Your task to perform on an android device: Go to eBay Image 0: 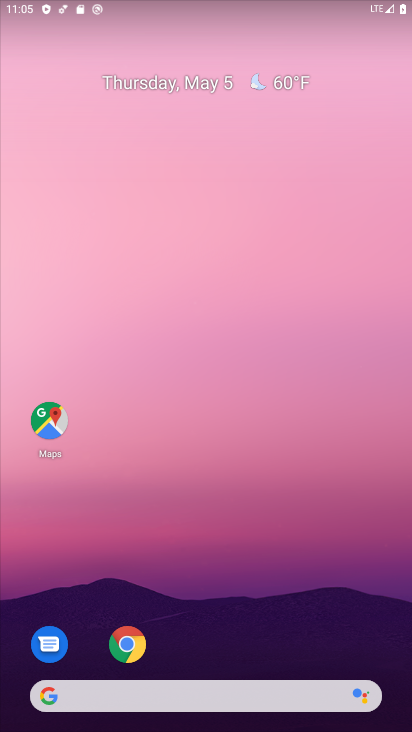
Step 0: drag from (355, 620) to (341, 125)
Your task to perform on an android device: Go to eBay Image 1: 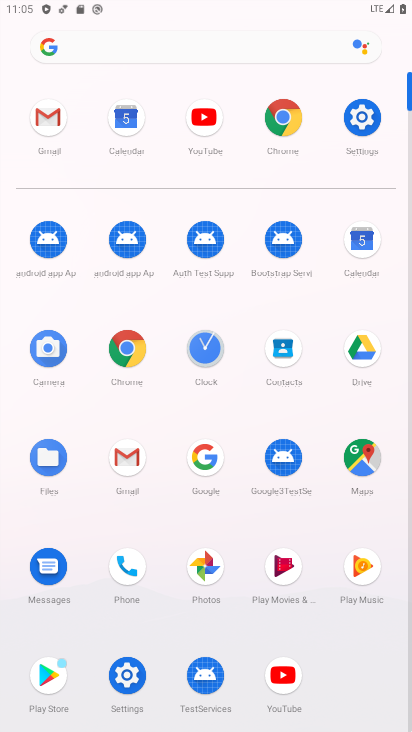
Step 1: click (126, 348)
Your task to perform on an android device: Go to eBay Image 2: 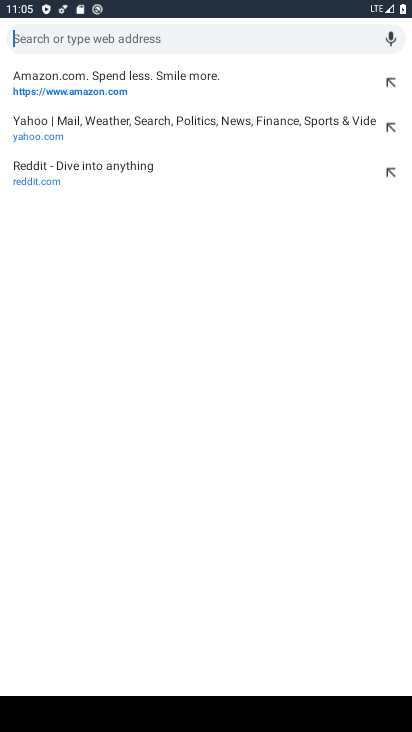
Step 2: type "ebay"
Your task to perform on an android device: Go to eBay Image 3: 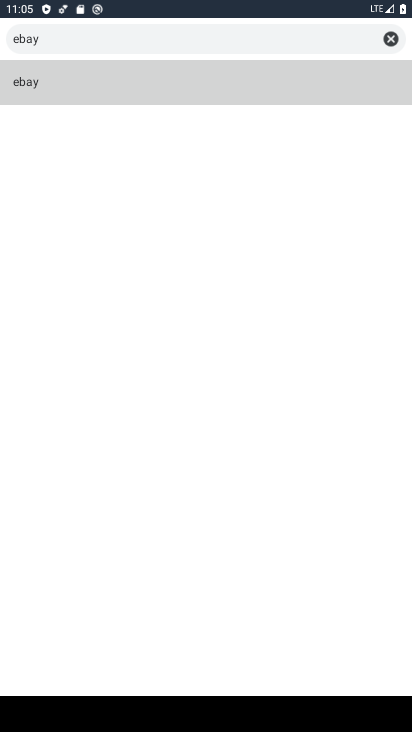
Step 3: click (26, 77)
Your task to perform on an android device: Go to eBay Image 4: 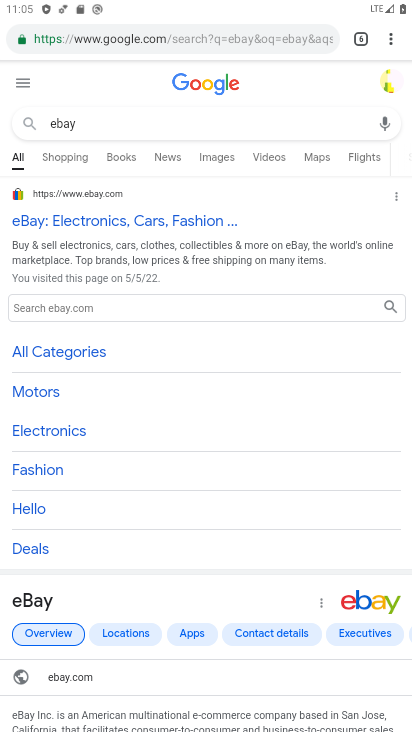
Step 4: click (111, 223)
Your task to perform on an android device: Go to eBay Image 5: 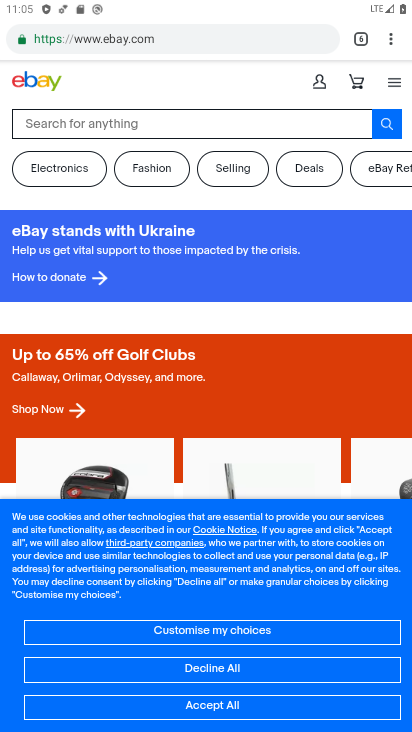
Step 5: click (185, 710)
Your task to perform on an android device: Go to eBay Image 6: 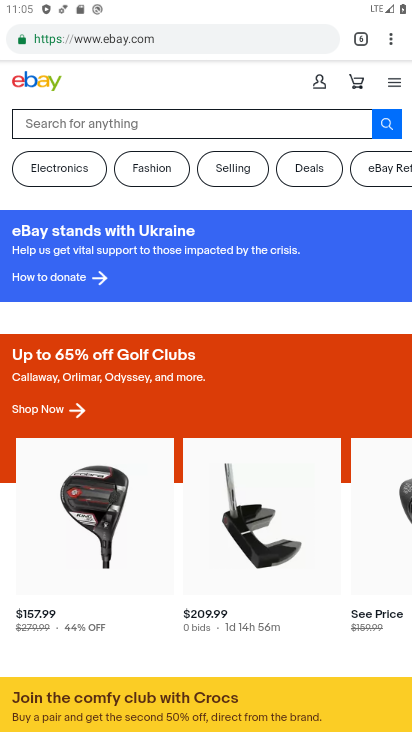
Step 6: task complete